Your task to perform on an android device: add a contact Image 0: 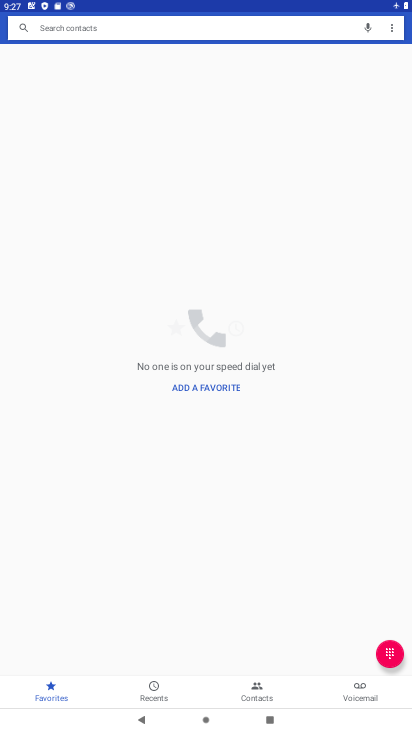
Step 0: press home button
Your task to perform on an android device: add a contact Image 1: 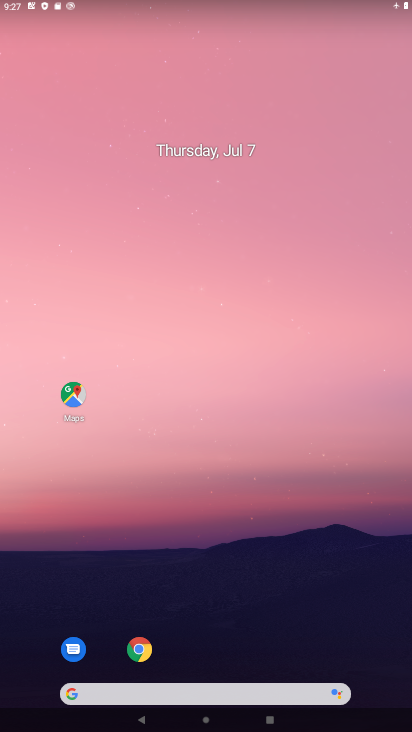
Step 1: drag from (206, 730) to (201, 148)
Your task to perform on an android device: add a contact Image 2: 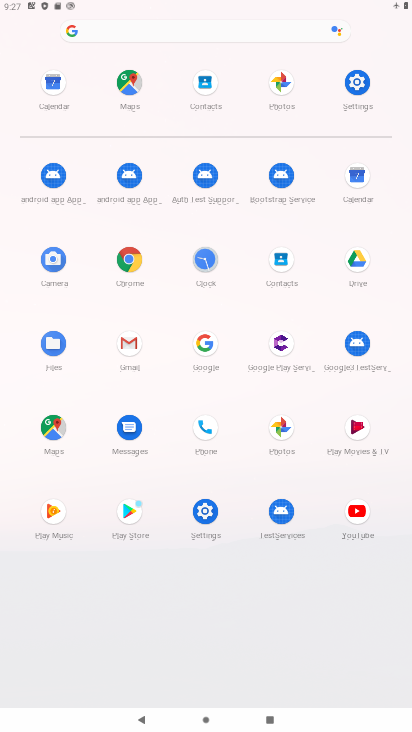
Step 2: click (287, 254)
Your task to perform on an android device: add a contact Image 3: 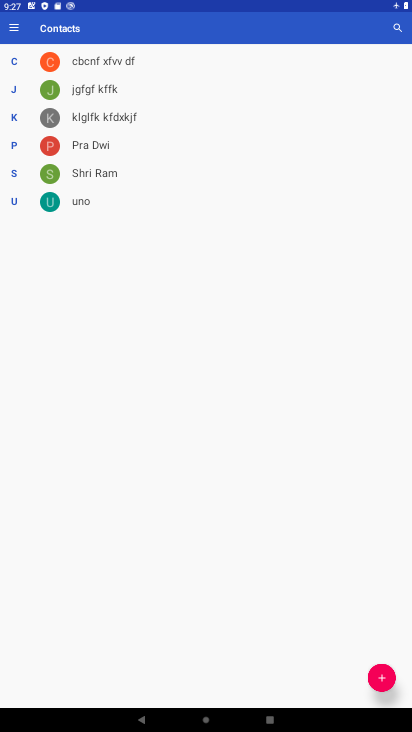
Step 3: click (388, 678)
Your task to perform on an android device: add a contact Image 4: 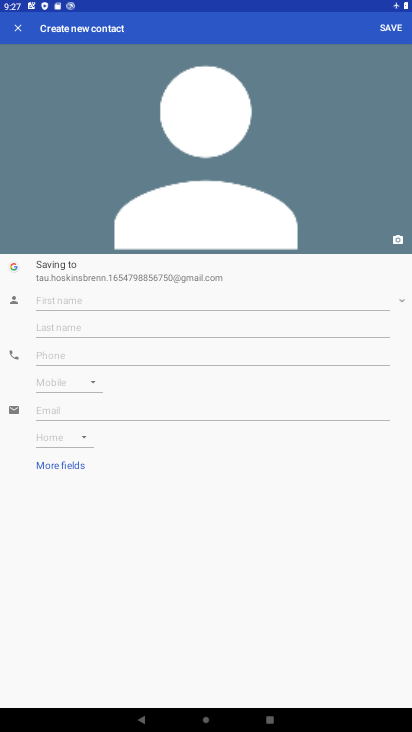
Step 4: click (128, 302)
Your task to perform on an android device: add a contact Image 5: 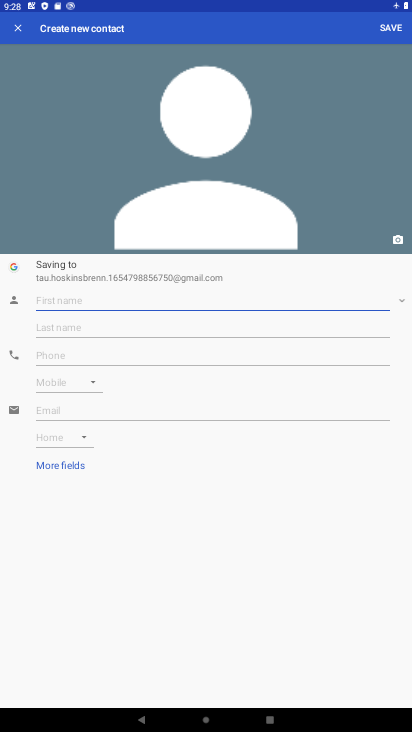
Step 5: type "dogman"
Your task to perform on an android device: add a contact Image 6: 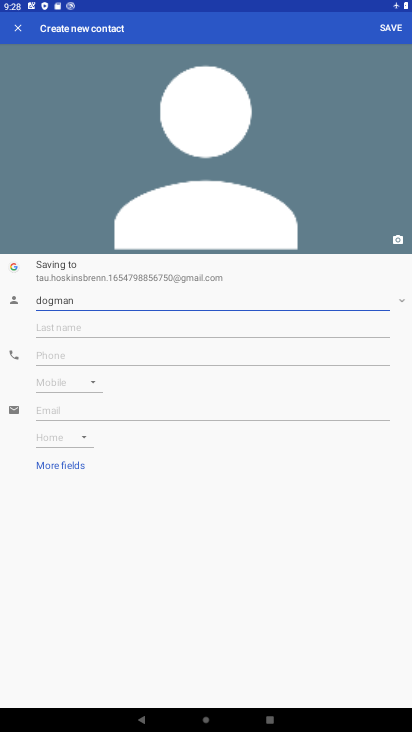
Step 6: click (72, 350)
Your task to perform on an android device: add a contact Image 7: 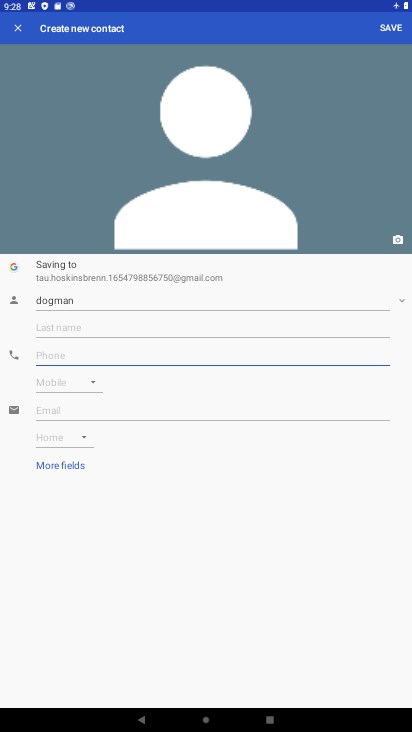
Step 7: type "89898"
Your task to perform on an android device: add a contact Image 8: 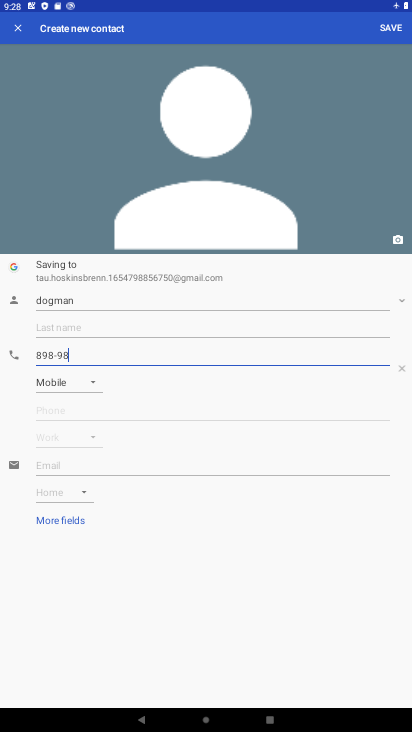
Step 8: type ""
Your task to perform on an android device: add a contact Image 9: 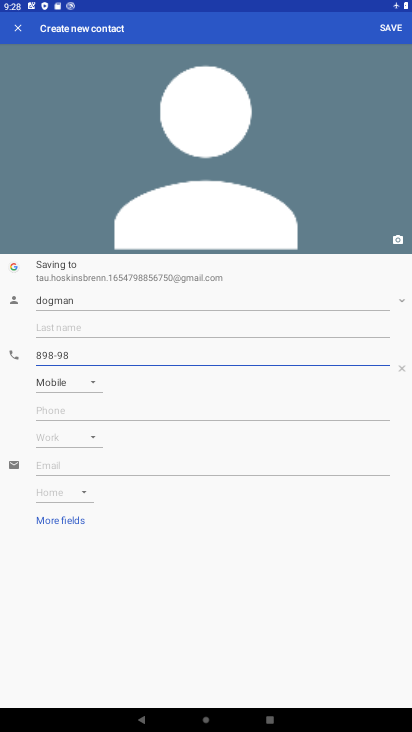
Step 9: click (388, 21)
Your task to perform on an android device: add a contact Image 10: 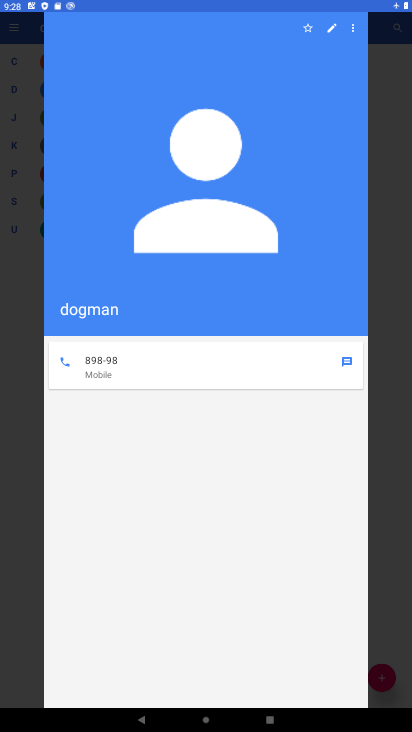
Step 10: task complete